Your task to perform on an android device: Play the last video I watched on Youtube Image 0: 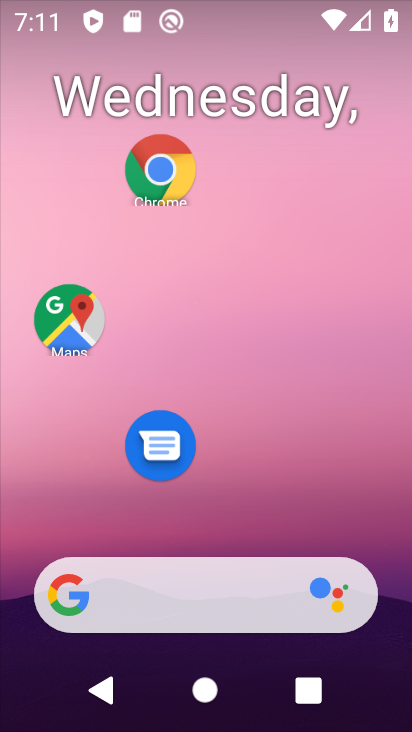
Step 0: drag from (334, 455) to (281, 225)
Your task to perform on an android device: Play the last video I watched on Youtube Image 1: 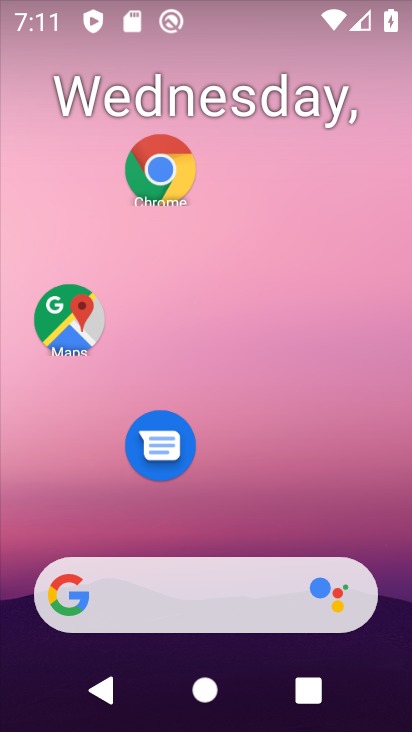
Step 1: drag from (279, 482) to (323, 30)
Your task to perform on an android device: Play the last video I watched on Youtube Image 2: 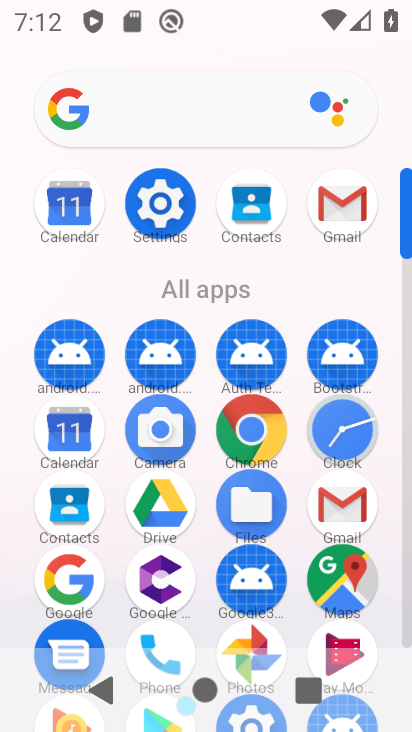
Step 2: click (405, 638)
Your task to perform on an android device: Play the last video I watched on Youtube Image 3: 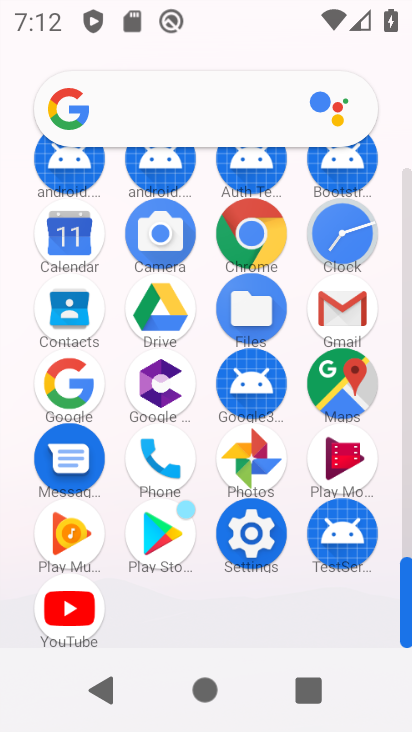
Step 3: click (65, 625)
Your task to perform on an android device: Play the last video I watched on Youtube Image 4: 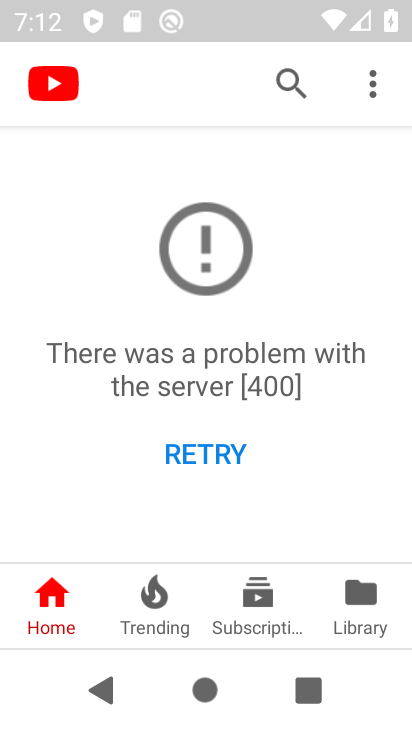
Step 4: task complete